Your task to perform on an android device: Open privacy settings Image 0: 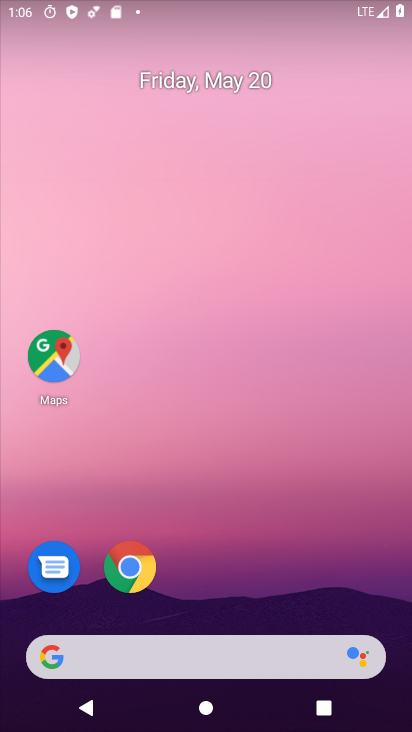
Step 0: drag from (215, 578) to (167, 187)
Your task to perform on an android device: Open privacy settings Image 1: 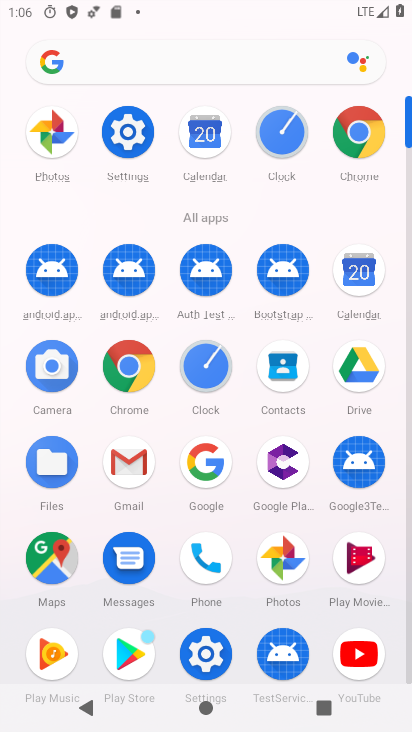
Step 1: click (142, 155)
Your task to perform on an android device: Open privacy settings Image 2: 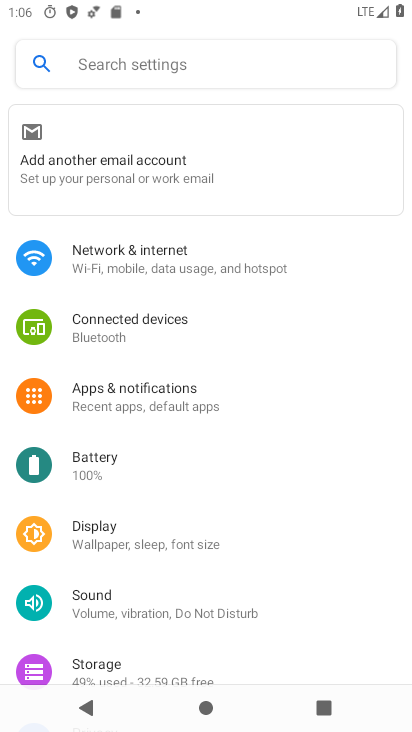
Step 2: drag from (271, 582) to (225, 207)
Your task to perform on an android device: Open privacy settings Image 3: 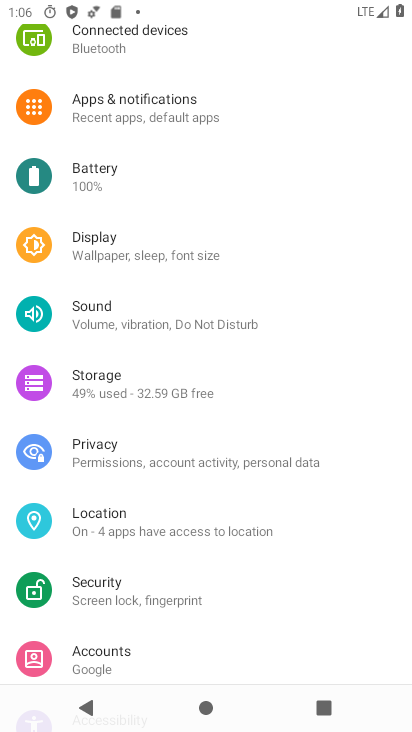
Step 3: click (213, 471)
Your task to perform on an android device: Open privacy settings Image 4: 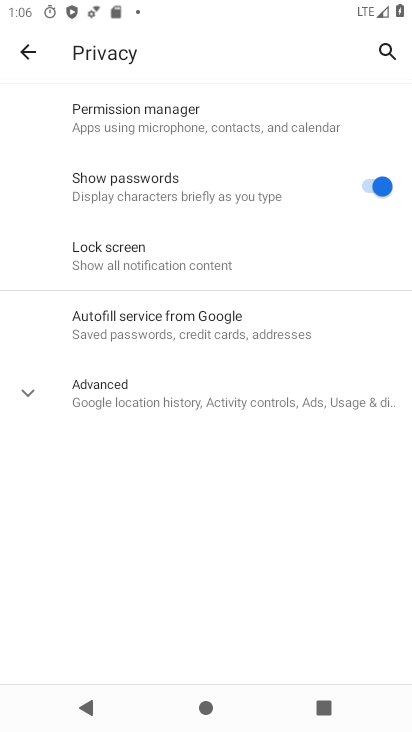
Step 4: task complete